Your task to perform on an android device: Open calendar and show me the first week of next month Image 0: 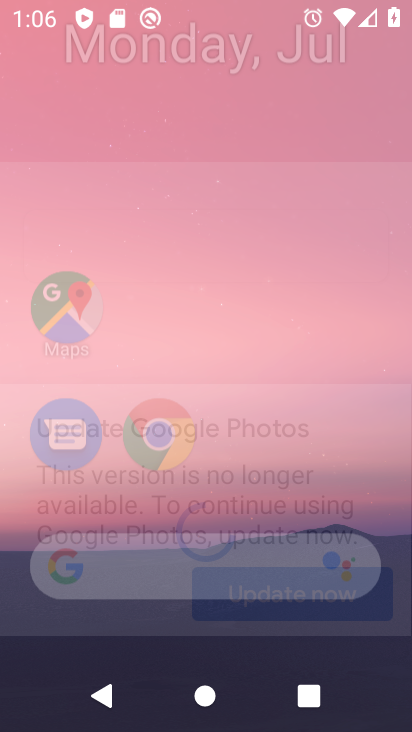
Step 0: press home button
Your task to perform on an android device: Open calendar and show me the first week of next month Image 1: 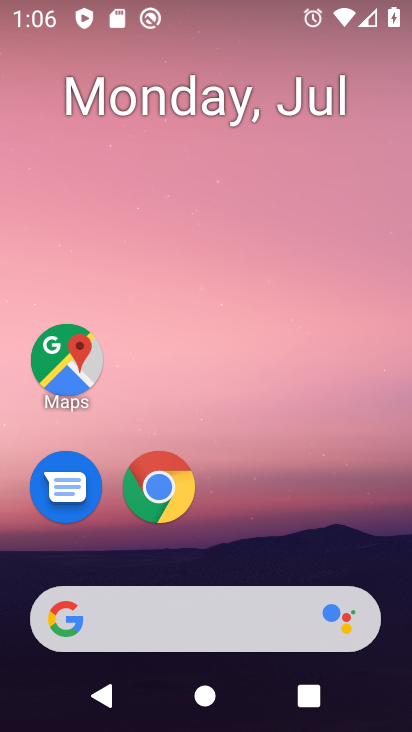
Step 1: drag from (320, 529) to (278, 124)
Your task to perform on an android device: Open calendar and show me the first week of next month Image 2: 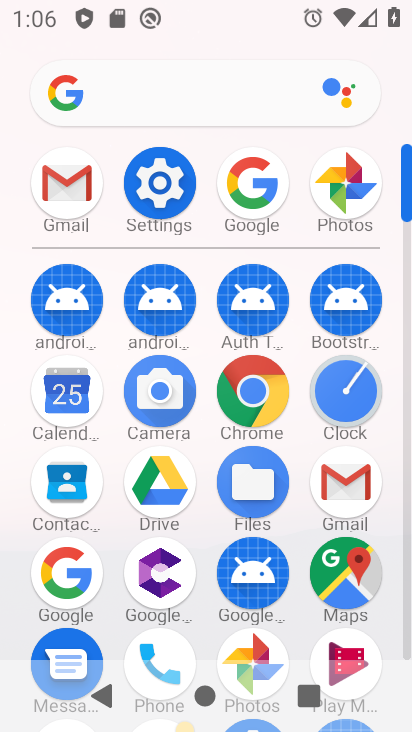
Step 2: click (65, 397)
Your task to perform on an android device: Open calendar and show me the first week of next month Image 3: 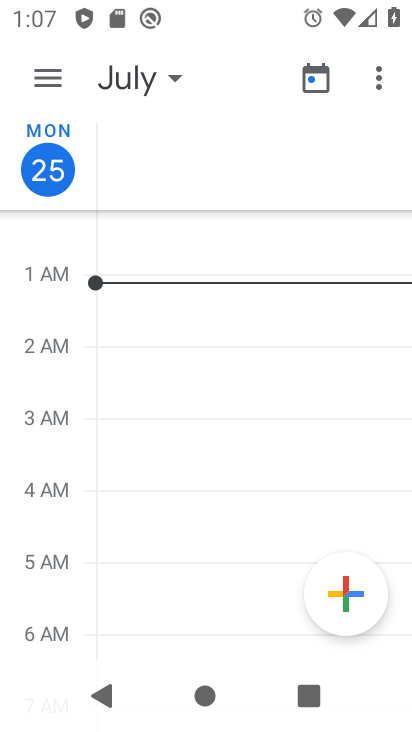
Step 3: click (48, 73)
Your task to perform on an android device: Open calendar and show me the first week of next month Image 4: 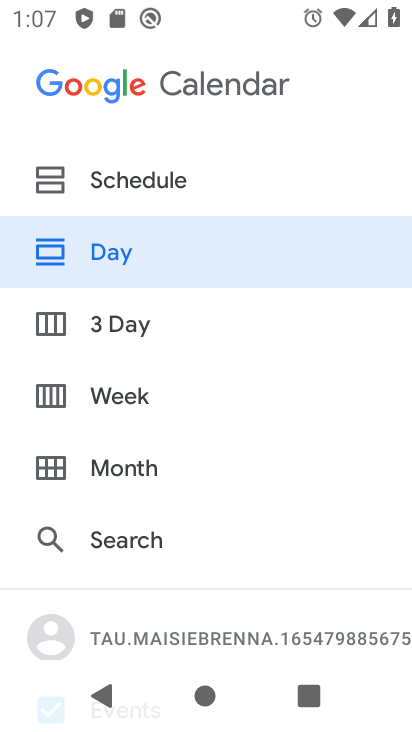
Step 4: click (121, 391)
Your task to perform on an android device: Open calendar and show me the first week of next month Image 5: 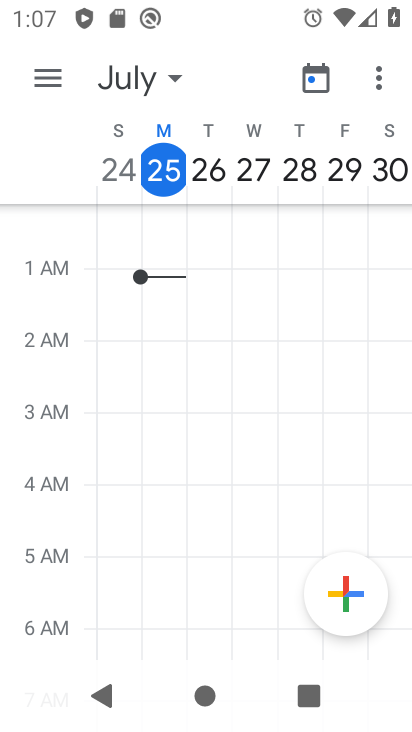
Step 5: task complete